Your task to perform on an android device: Open Youtube and go to "Your channel" Image 0: 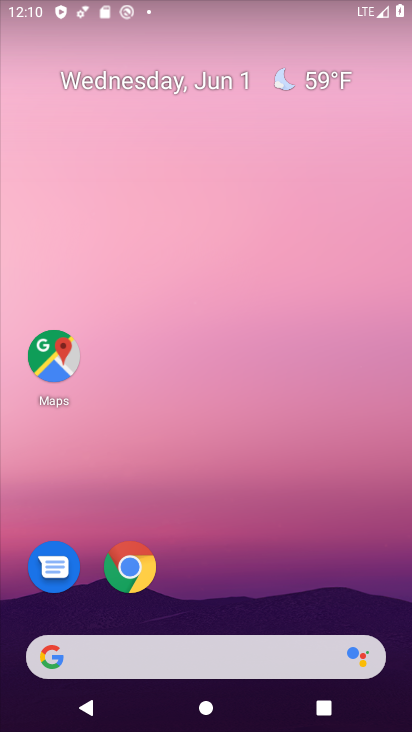
Step 0: drag from (254, 605) to (150, 171)
Your task to perform on an android device: Open Youtube and go to "Your channel" Image 1: 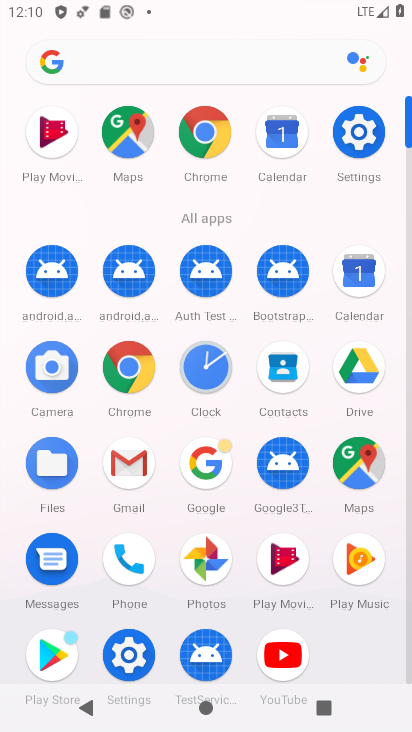
Step 1: click (280, 651)
Your task to perform on an android device: Open Youtube and go to "Your channel" Image 2: 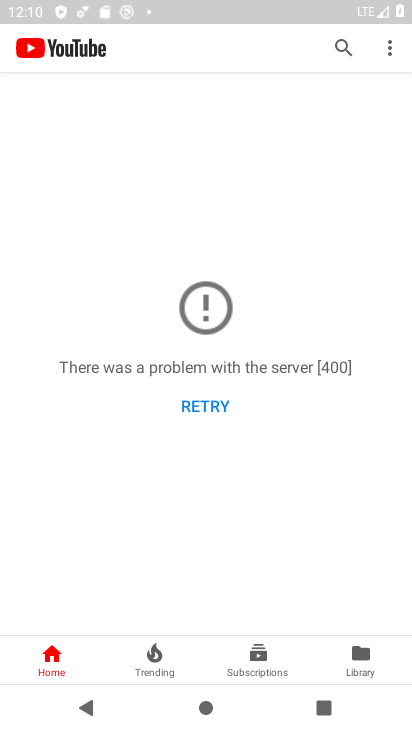
Step 2: task complete